Your task to perform on an android device: set an alarm Image 0: 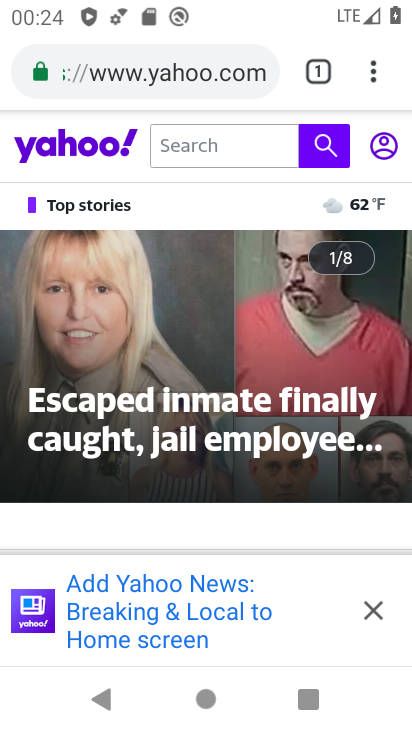
Step 0: press home button
Your task to perform on an android device: set an alarm Image 1: 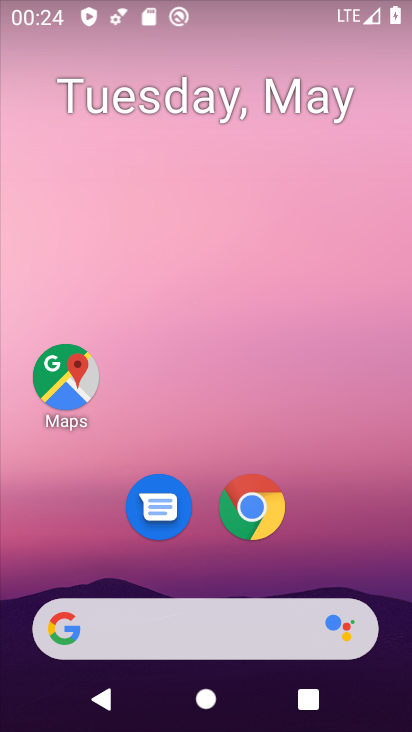
Step 1: drag from (146, 605) to (179, 277)
Your task to perform on an android device: set an alarm Image 2: 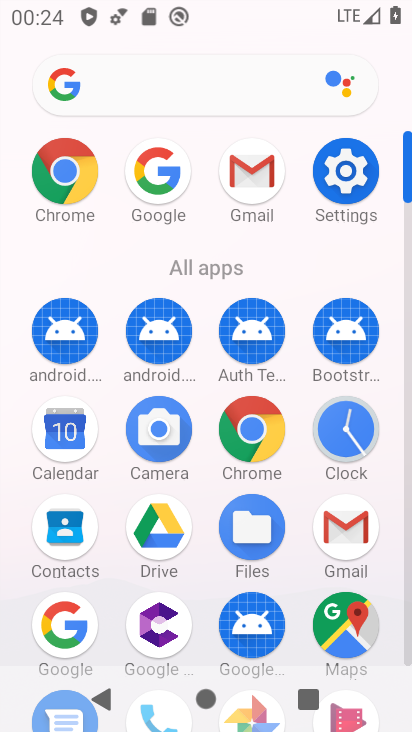
Step 2: click (352, 432)
Your task to perform on an android device: set an alarm Image 3: 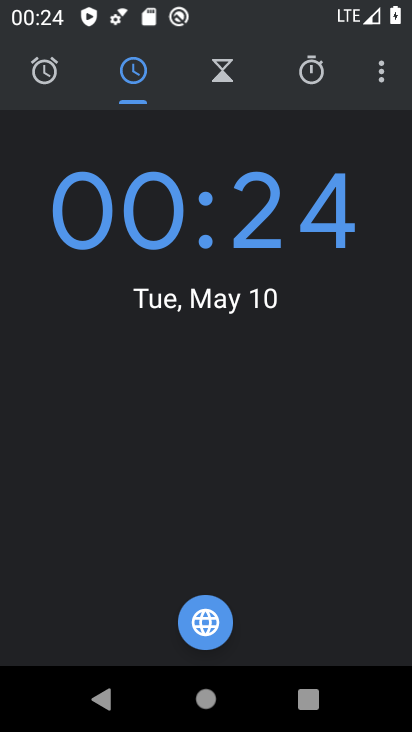
Step 3: click (54, 77)
Your task to perform on an android device: set an alarm Image 4: 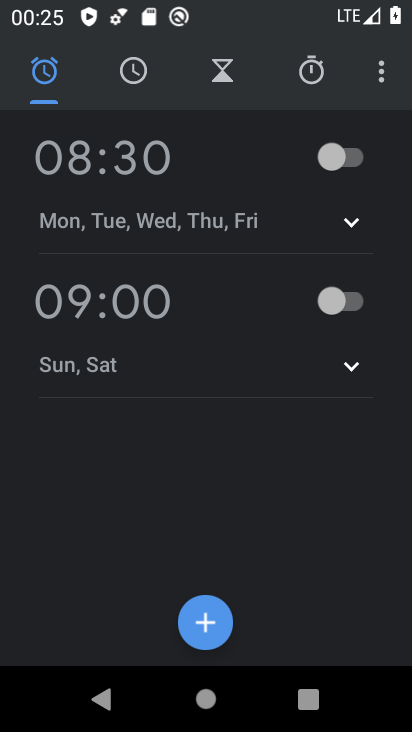
Step 4: click (359, 154)
Your task to perform on an android device: set an alarm Image 5: 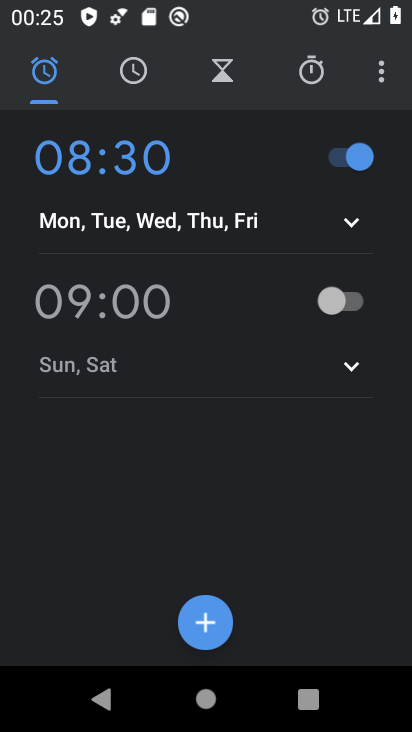
Step 5: task complete